Your task to perform on an android device: change the clock display to show seconds Image 0: 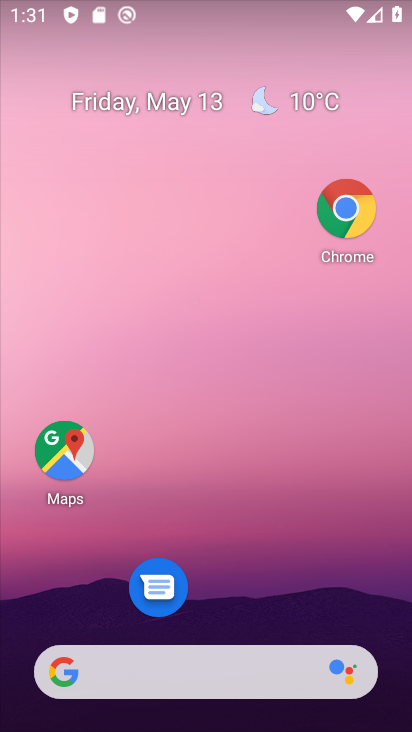
Step 0: drag from (241, 568) to (241, 136)
Your task to perform on an android device: change the clock display to show seconds Image 1: 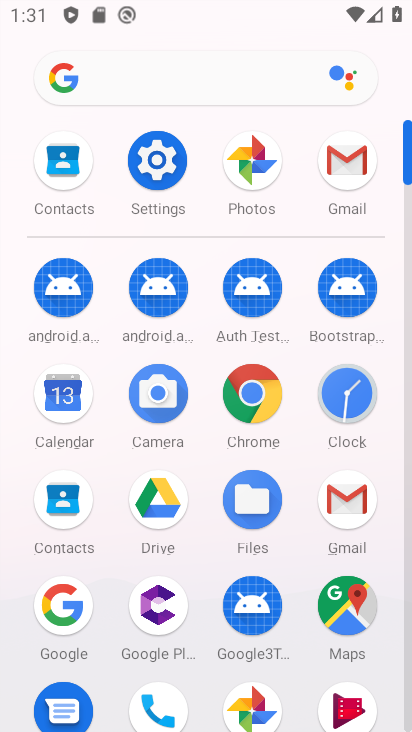
Step 1: click (330, 385)
Your task to perform on an android device: change the clock display to show seconds Image 2: 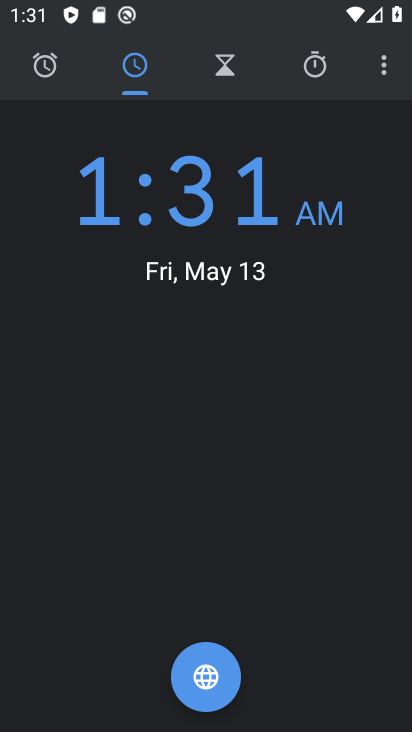
Step 2: click (383, 60)
Your task to perform on an android device: change the clock display to show seconds Image 3: 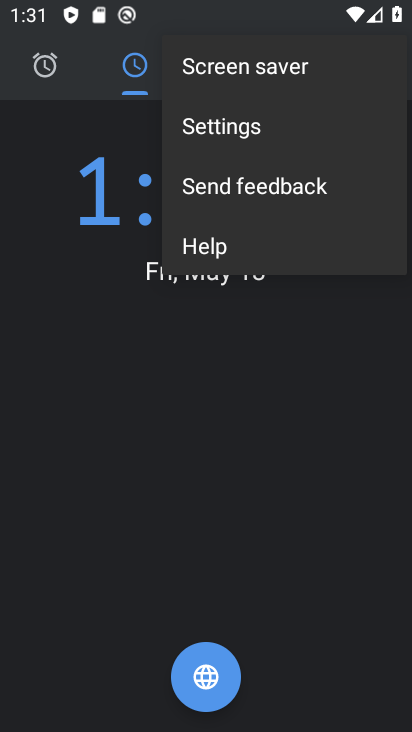
Step 3: click (245, 132)
Your task to perform on an android device: change the clock display to show seconds Image 4: 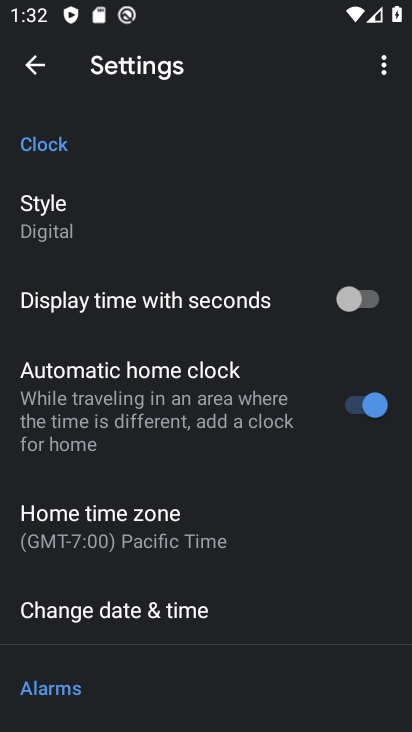
Step 4: click (344, 299)
Your task to perform on an android device: change the clock display to show seconds Image 5: 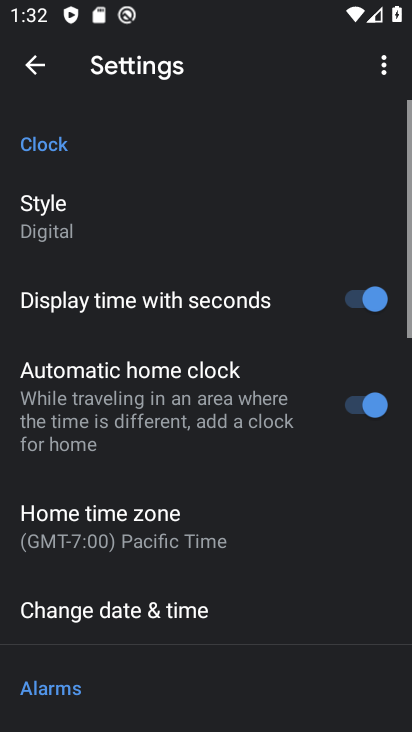
Step 5: task complete